Your task to perform on an android device: Go to Yahoo.com Image 0: 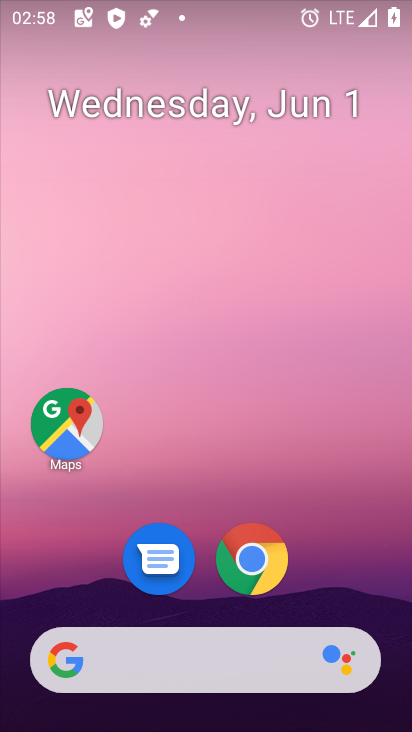
Step 0: press home button
Your task to perform on an android device: Go to Yahoo.com Image 1: 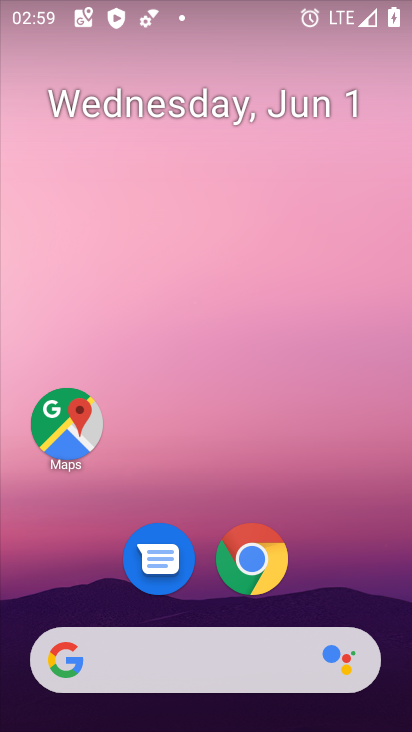
Step 1: click (59, 661)
Your task to perform on an android device: Go to Yahoo.com Image 2: 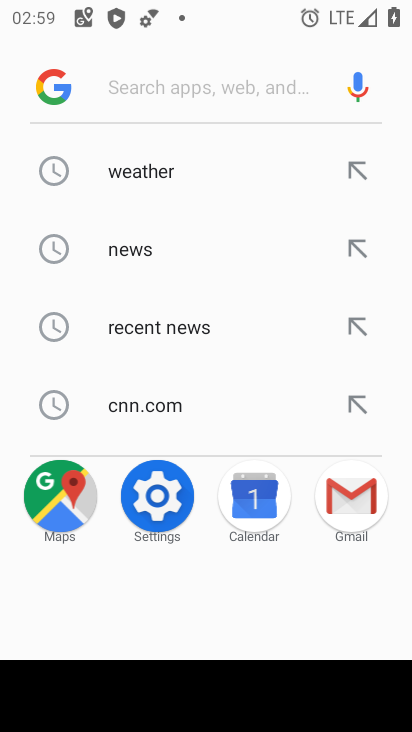
Step 2: type "Yahoo.com"
Your task to perform on an android device: Go to Yahoo.com Image 3: 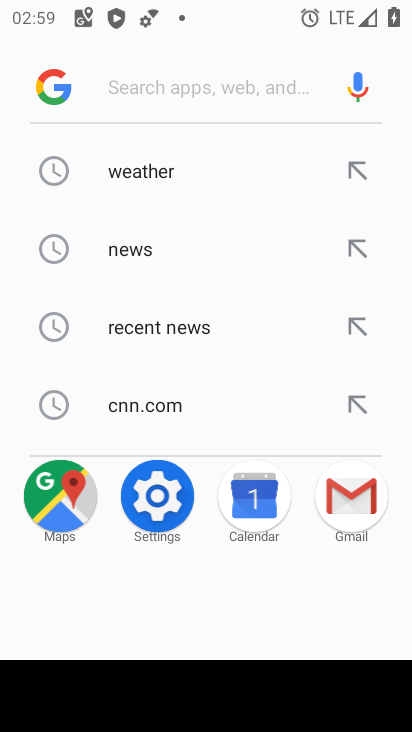
Step 3: click (153, 93)
Your task to perform on an android device: Go to Yahoo.com Image 4: 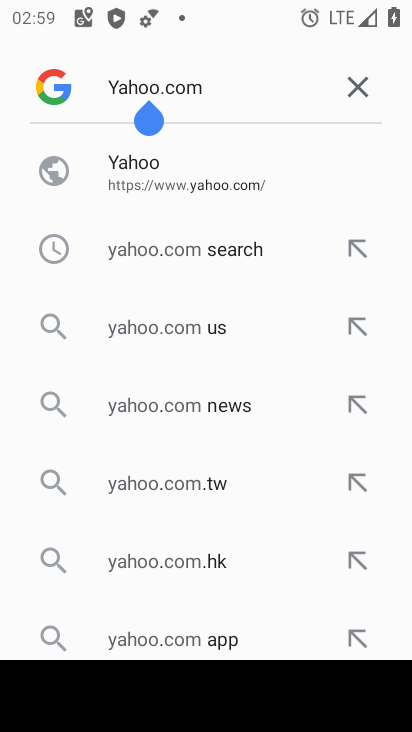
Step 4: click (134, 177)
Your task to perform on an android device: Go to Yahoo.com Image 5: 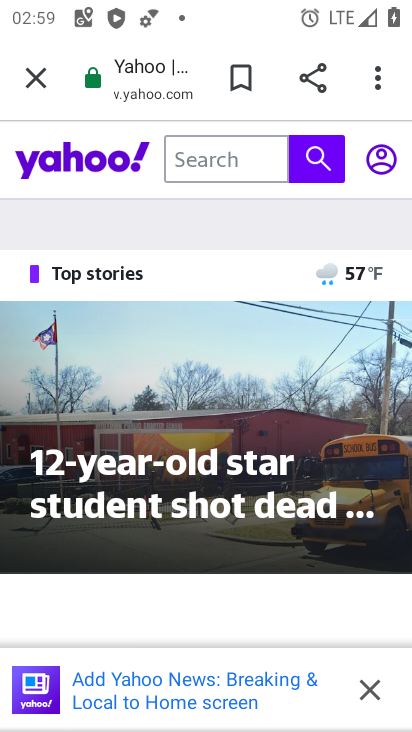
Step 5: task complete